Your task to perform on an android device: Open Chrome and go to settings Image 0: 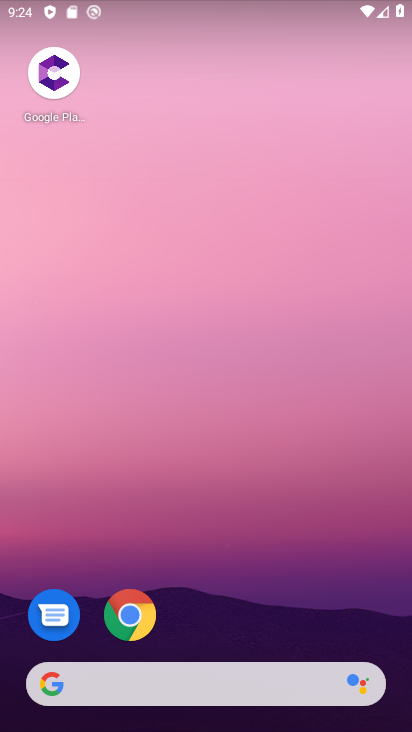
Step 0: click (137, 611)
Your task to perform on an android device: Open Chrome and go to settings Image 1: 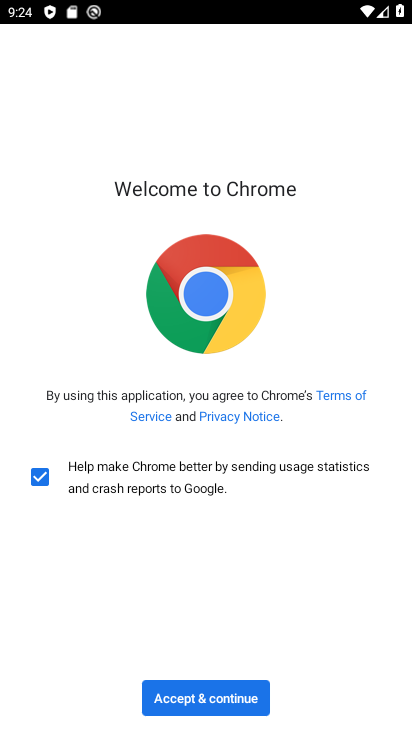
Step 1: click (236, 695)
Your task to perform on an android device: Open Chrome and go to settings Image 2: 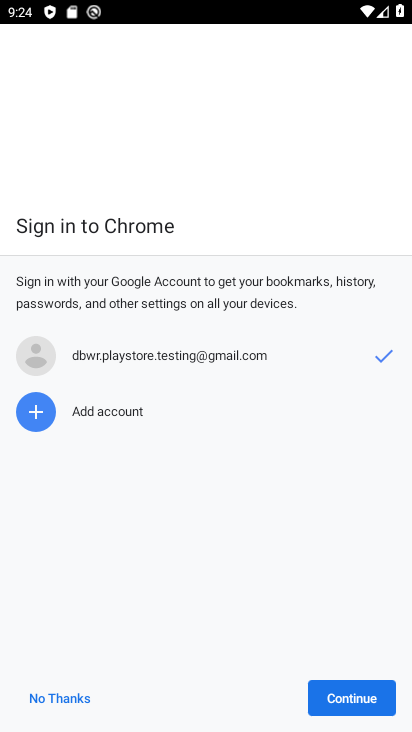
Step 2: click (373, 702)
Your task to perform on an android device: Open Chrome and go to settings Image 3: 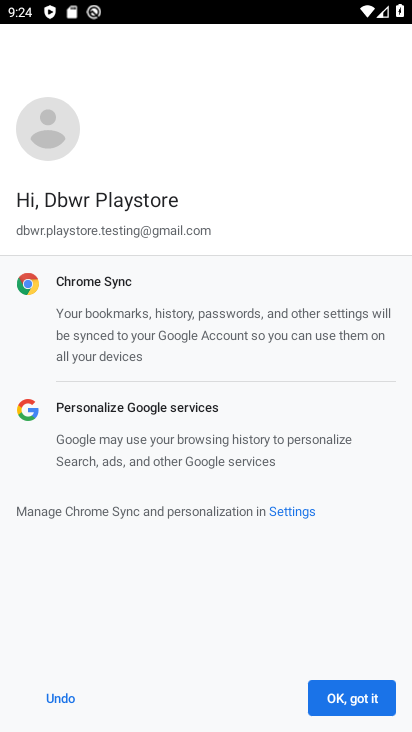
Step 3: click (373, 700)
Your task to perform on an android device: Open Chrome and go to settings Image 4: 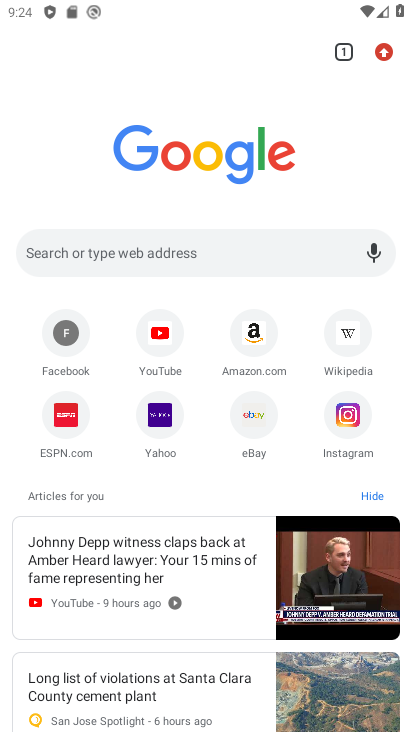
Step 4: click (385, 50)
Your task to perform on an android device: Open Chrome and go to settings Image 5: 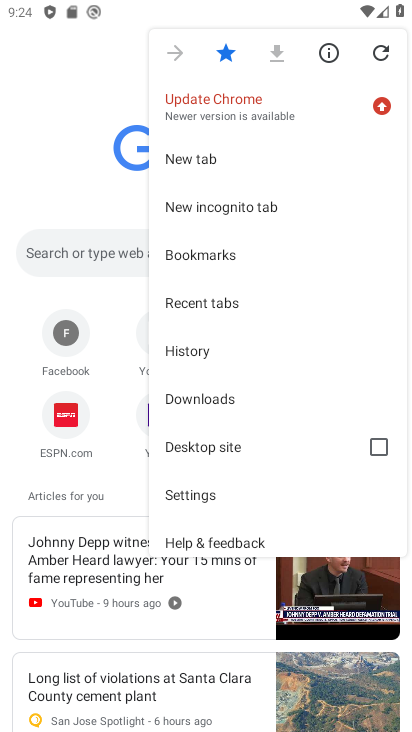
Step 5: click (213, 489)
Your task to perform on an android device: Open Chrome and go to settings Image 6: 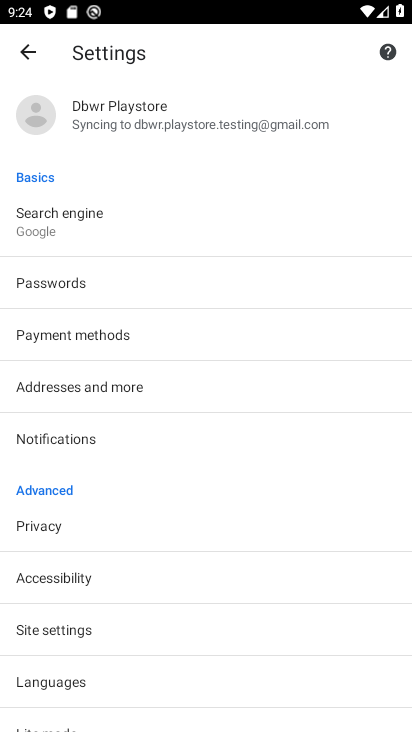
Step 6: task complete